Your task to perform on an android device: make emails show in primary in the gmail app Image 0: 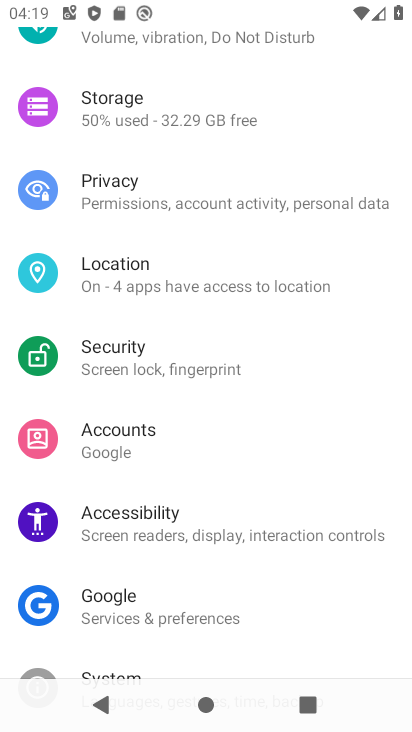
Step 0: press home button
Your task to perform on an android device: make emails show in primary in the gmail app Image 1: 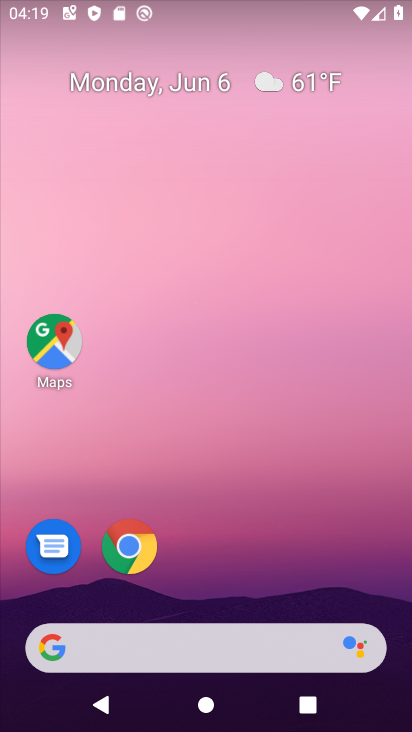
Step 1: drag from (219, 618) to (219, 94)
Your task to perform on an android device: make emails show in primary in the gmail app Image 2: 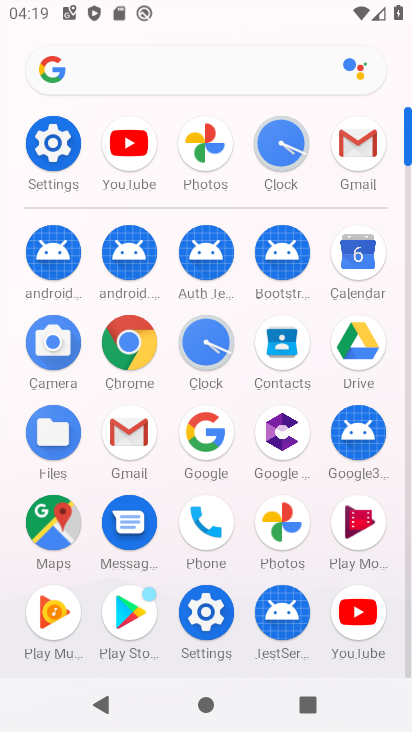
Step 2: click (368, 142)
Your task to perform on an android device: make emails show in primary in the gmail app Image 3: 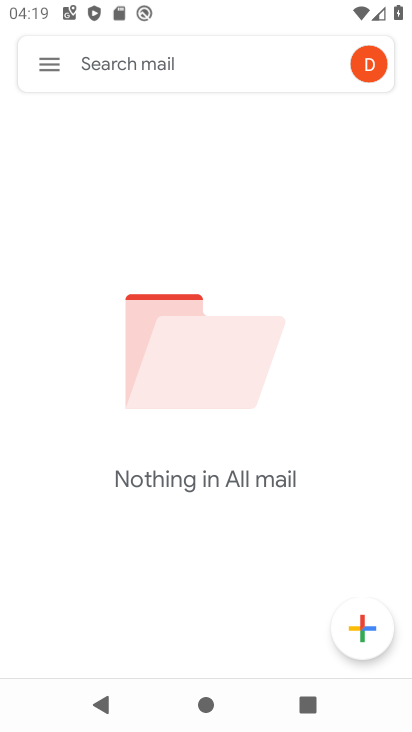
Step 3: click (54, 66)
Your task to perform on an android device: make emails show in primary in the gmail app Image 4: 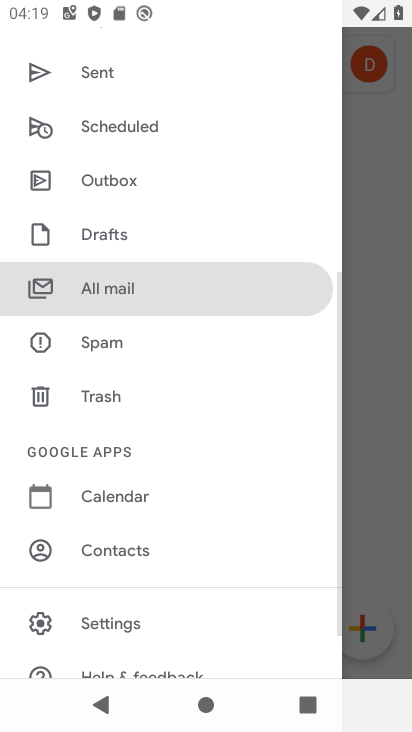
Step 4: click (109, 623)
Your task to perform on an android device: make emails show in primary in the gmail app Image 5: 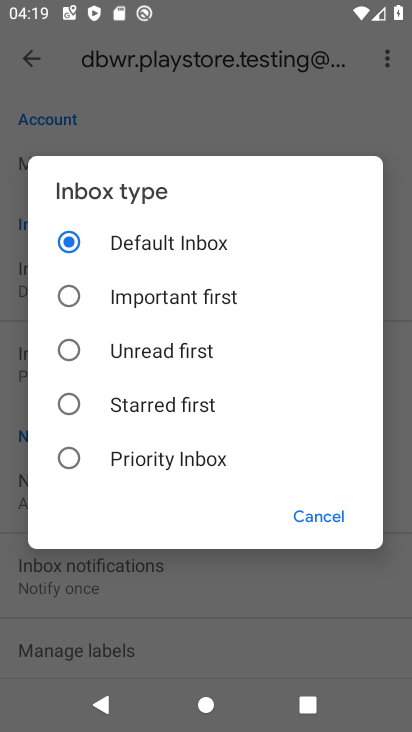
Step 5: click (320, 511)
Your task to perform on an android device: make emails show in primary in the gmail app Image 6: 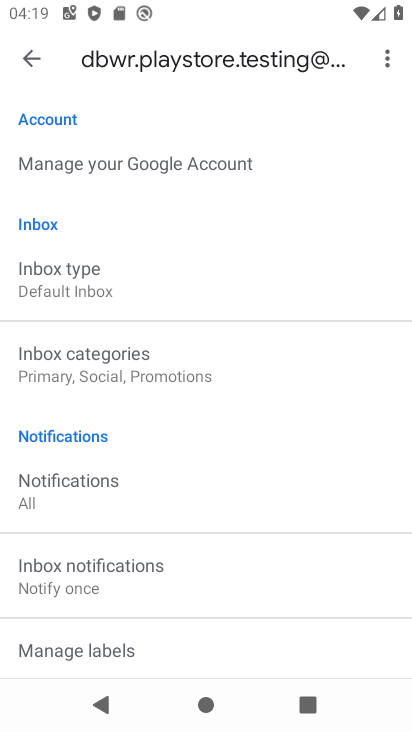
Step 6: click (95, 356)
Your task to perform on an android device: make emails show in primary in the gmail app Image 7: 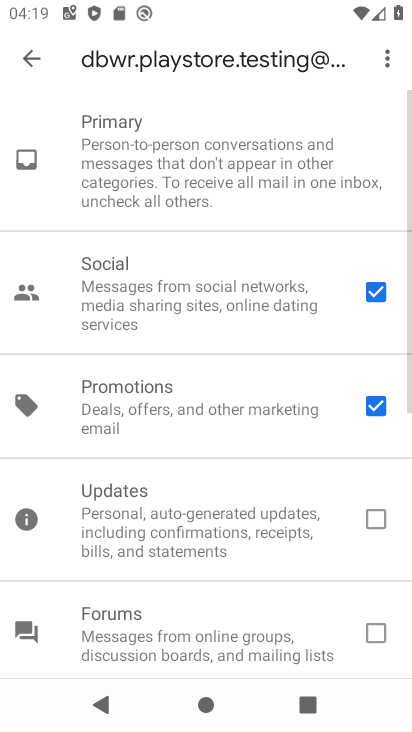
Step 7: click (384, 289)
Your task to perform on an android device: make emails show in primary in the gmail app Image 8: 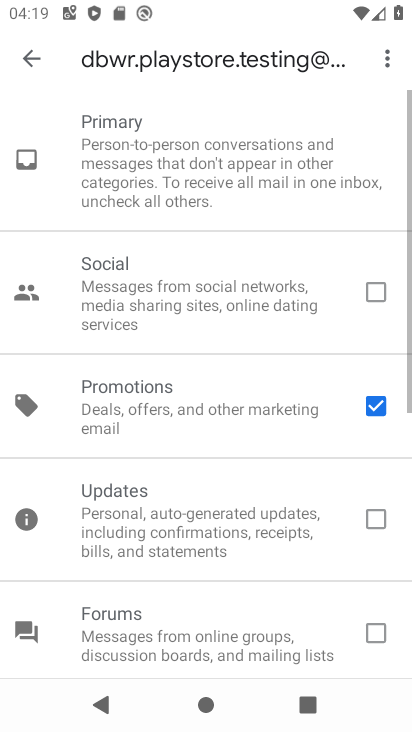
Step 8: click (381, 404)
Your task to perform on an android device: make emails show in primary in the gmail app Image 9: 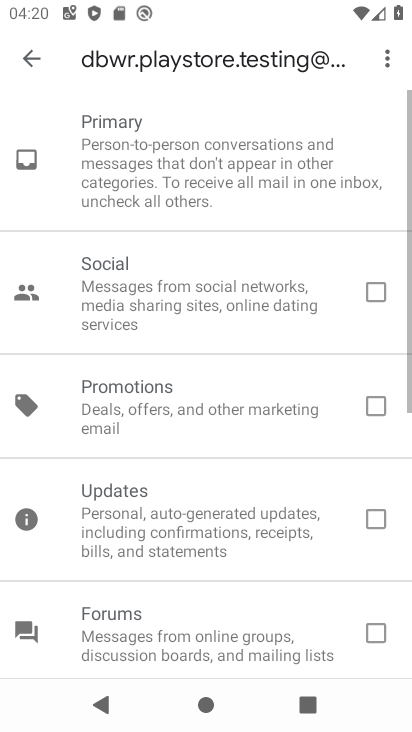
Step 9: task complete